Your task to perform on an android device: Open the web browser Image 0: 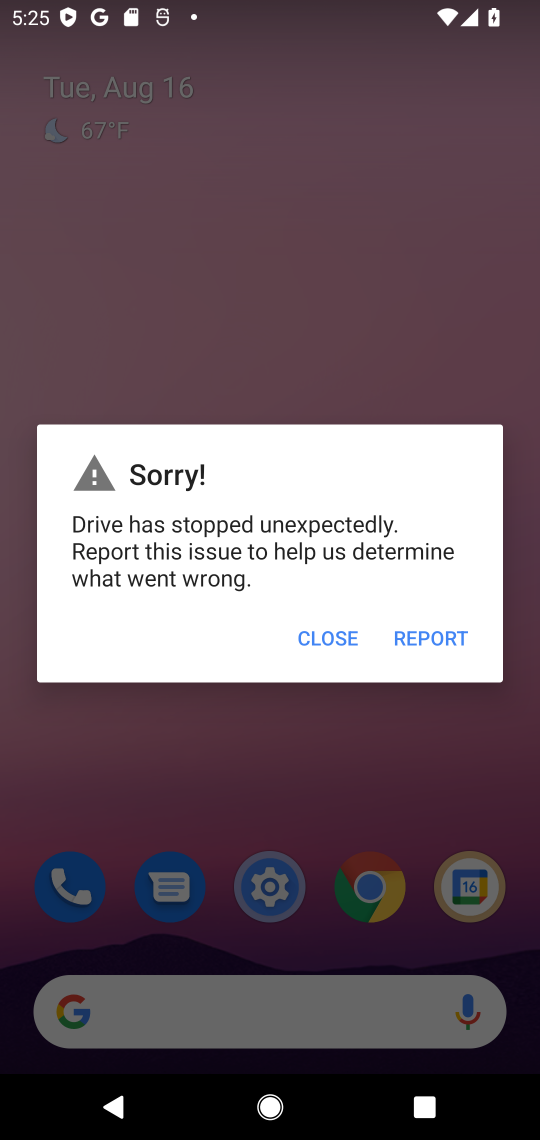
Step 0: press home button
Your task to perform on an android device: Open the web browser Image 1: 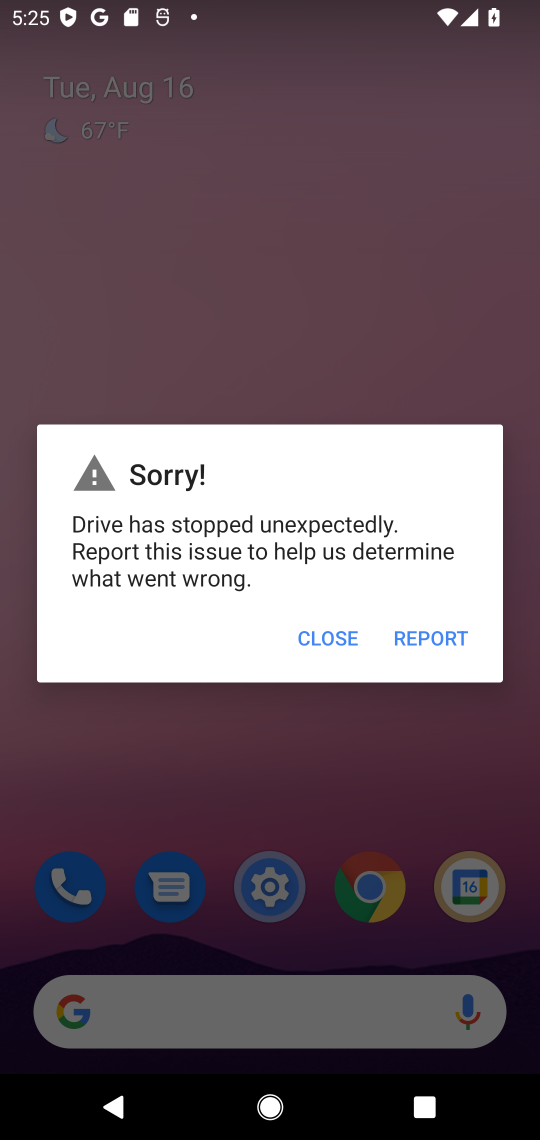
Step 1: press home button
Your task to perform on an android device: Open the web browser Image 2: 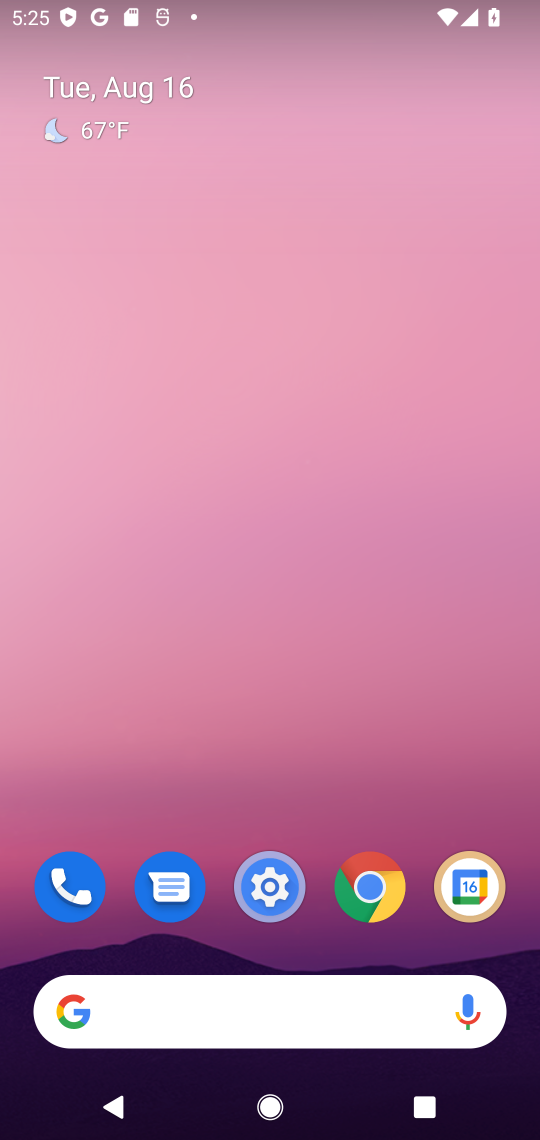
Step 2: drag from (339, 745) to (429, 9)
Your task to perform on an android device: Open the web browser Image 3: 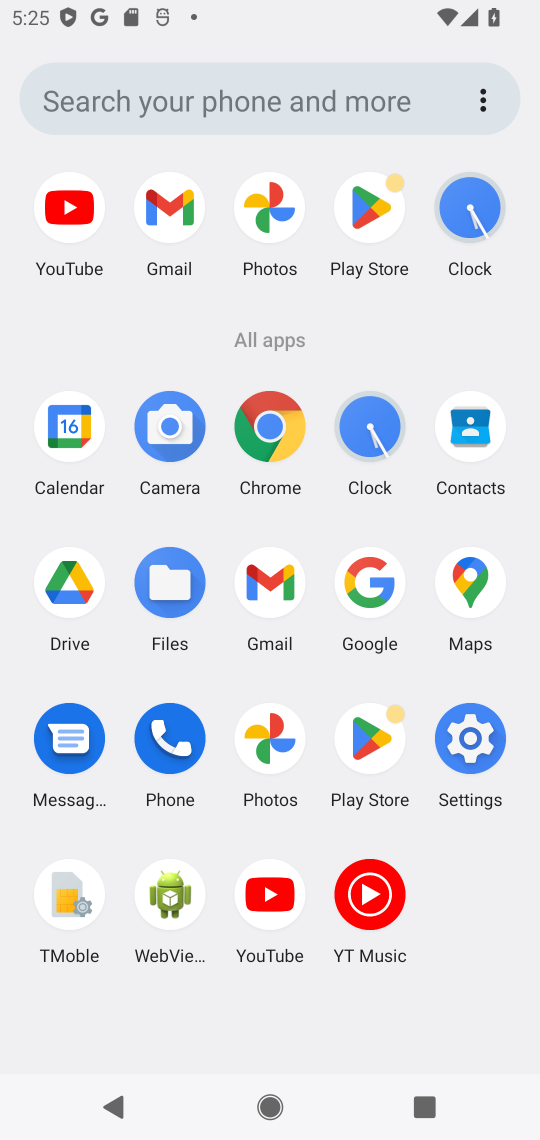
Step 3: click (275, 425)
Your task to perform on an android device: Open the web browser Image 4: 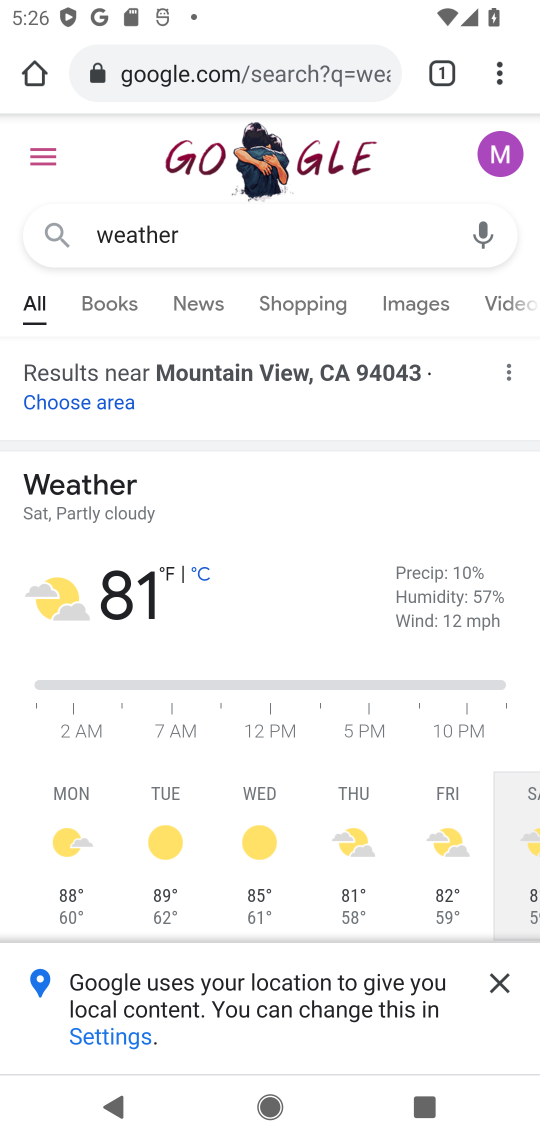
Step 4: task complete